Your task to perform on an android device: Is it going to rain today? Image 0: 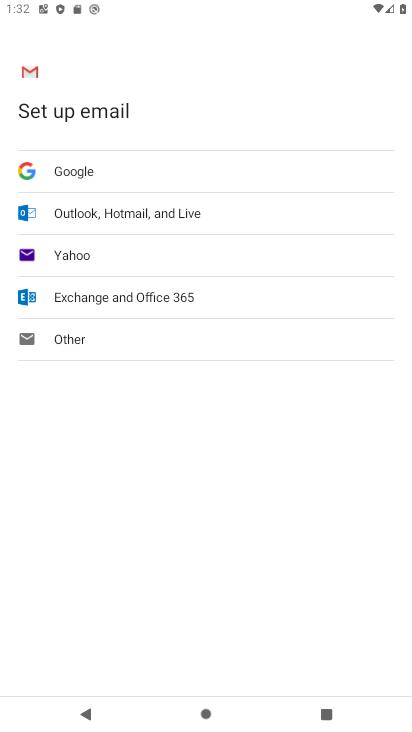
Step 0: press home button
Your task to perform on an android device: Is it going to rain today? Image 1: 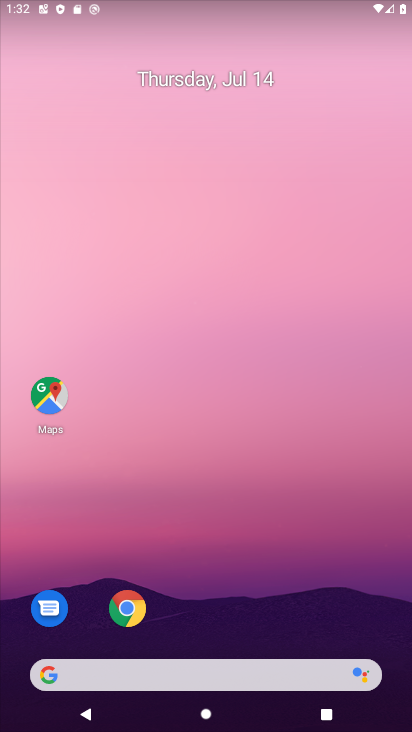
Step 1: task complete